Your task to perform on an android device: open app "Truecaller" (install if not already installed), go to login, and select forgot password Image 0: 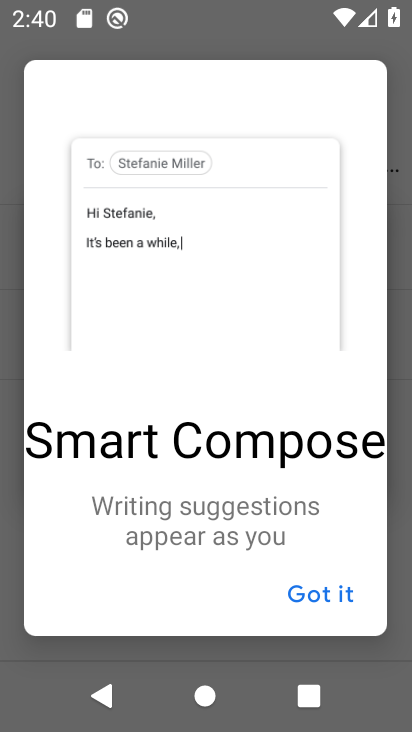
Step 0: press home button
Your task to perform on an android device: open app "Truecaller" (install if not already installed), go to login, and select forgot password Image 1: 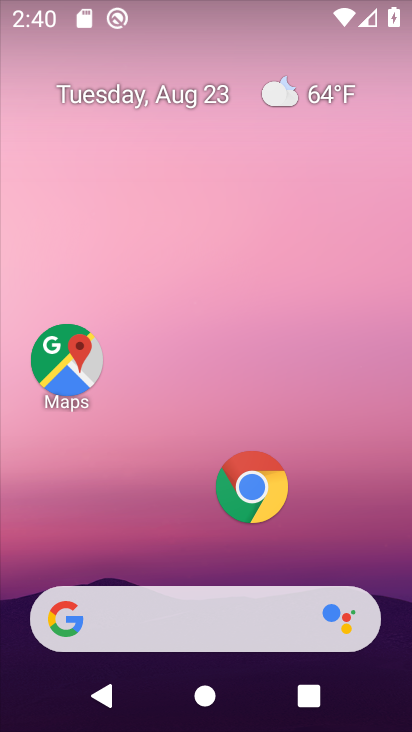
Step 1: drag from (136, 509) to (175, 204)
Your task to perform on an android device: open app "Truecaller" (install if not already installed), go to login, and select forgot password Image 2: 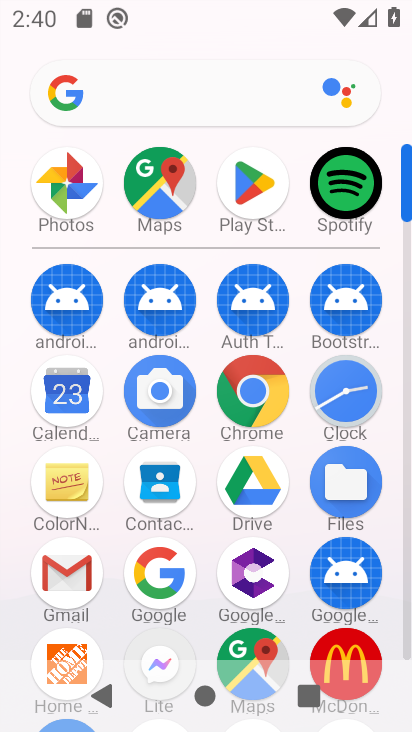
Step 2: click (263, 190)
Your task to perform on an android device: open app "Truecaller" (install if not already installed), go to login, and select forgot password Image 3: 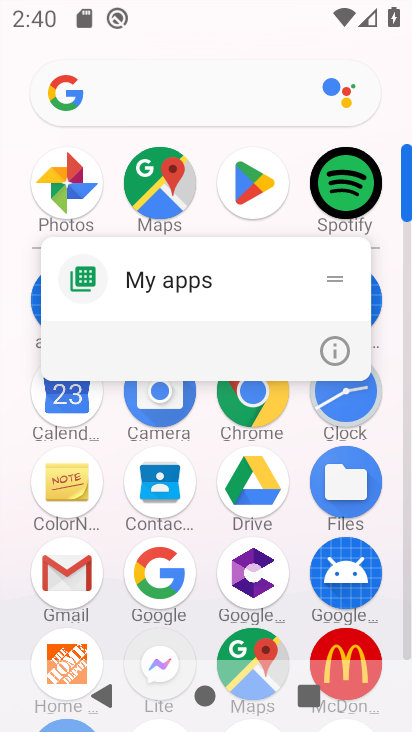
Step 3: click (253, 178)
Your task to perform on an android device: open app "Truecaller" (install if not already installed), go to login, and select forgot password Image 4: 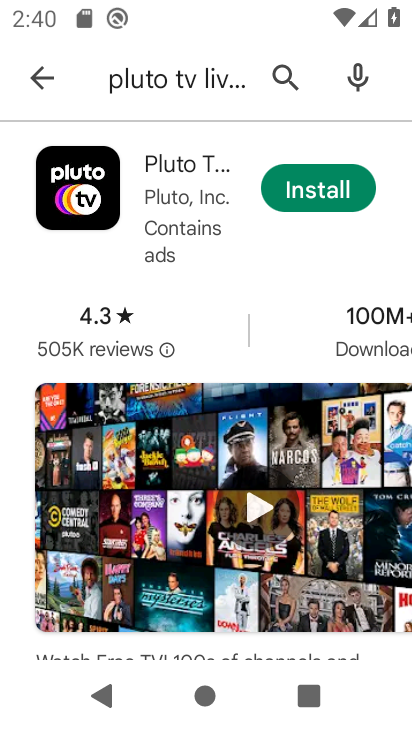
Step 4: click (23, 66)
Your task to perform on an android device: open app "Truecaller" (install if not already installed), go to login, and select forgot password Image 5: 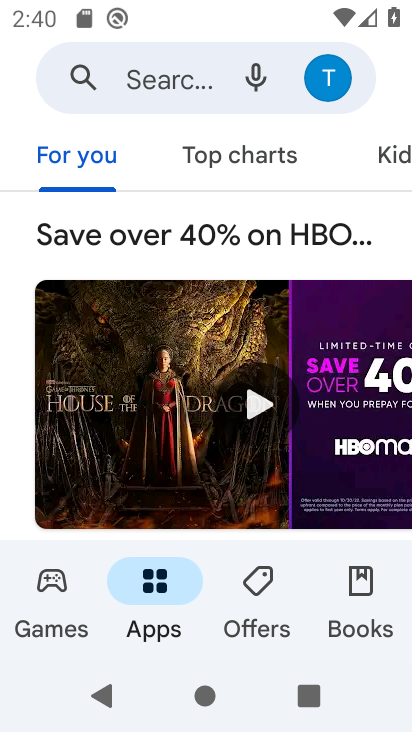
Step 5: click (184, 83)
Your task to perform on an android device: open app "Truecaller" (install if not already installed), go to login, and select forgot password Image 6: 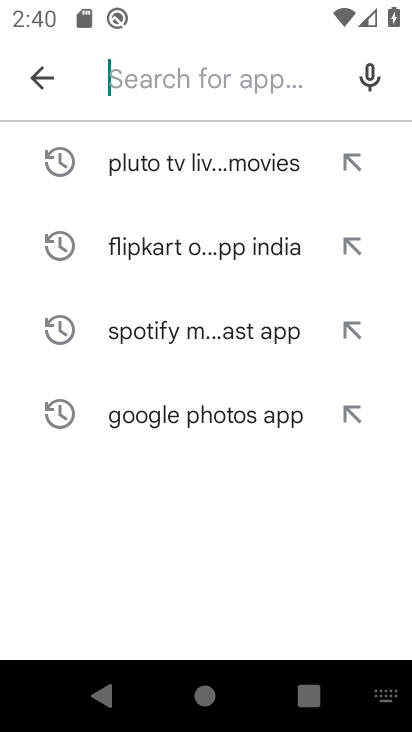
Step 6: type "truecaller "
Your task to perform on an android device: open app "Truecaller" (install if not already installed), go to login, and select forgot password Image 7: 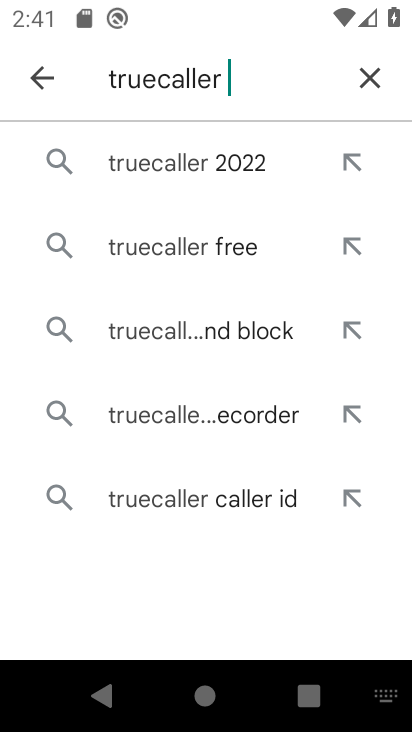
Step 7: click (190, 162)
Your task to perform on an android device: open app "Truecaller" (install if not already installed), go to login, and select forgot password Image 8: 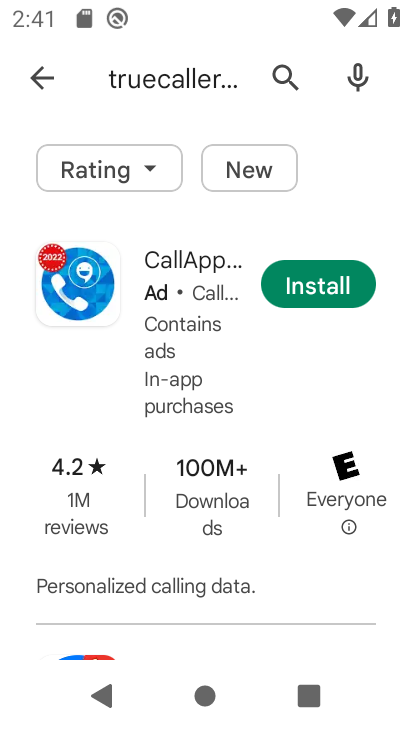
Step 8: click (49, 82)
Your task to perform on an android device: open app "Truecaller" (install if not already installed), go to login, and select forgot password Image 9: 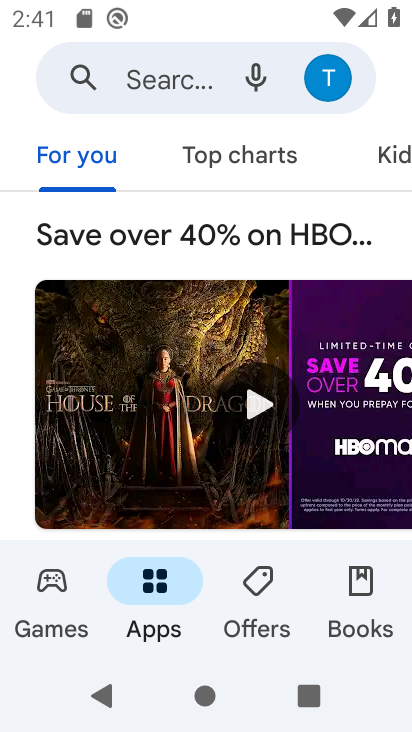
Step 9: click (177, 83)
Your task to perform on an android device: open app "Truecaller" (install if not already installed), go to login, and select forgot password Image 10: 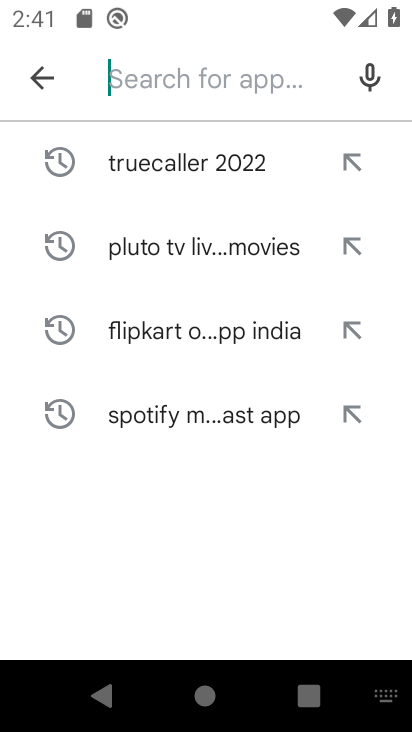
Step 10: click (123, 178)
Your task to perform on an android device: open app "Truecaller" (install if not already installed), go to login, and select forgot password Image 11: 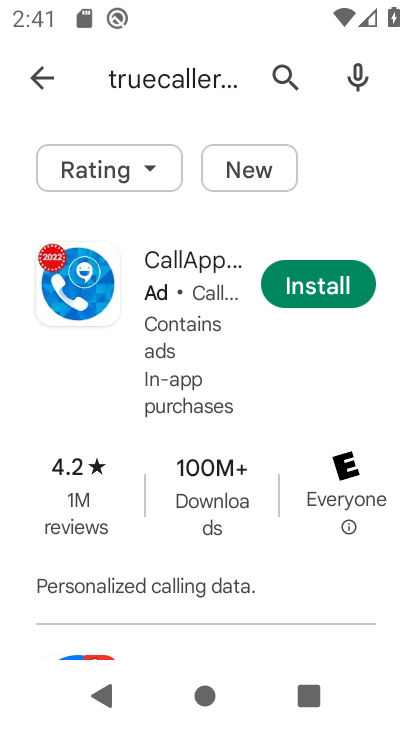
Step 11: drag from (143, 505) to (245, 155)
Your task to perform on an android device: open app "Truecaller" (install if not already installed), go to login, and select forgot password Image 12: 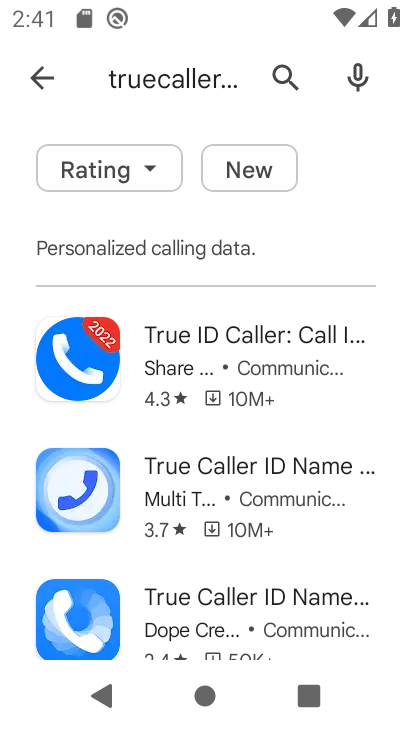
Step 12: click (197, 363)
Your task to perform on an android device: open app "Truecaller" (install if not already installed), go to login, and select forgot password Image 13: 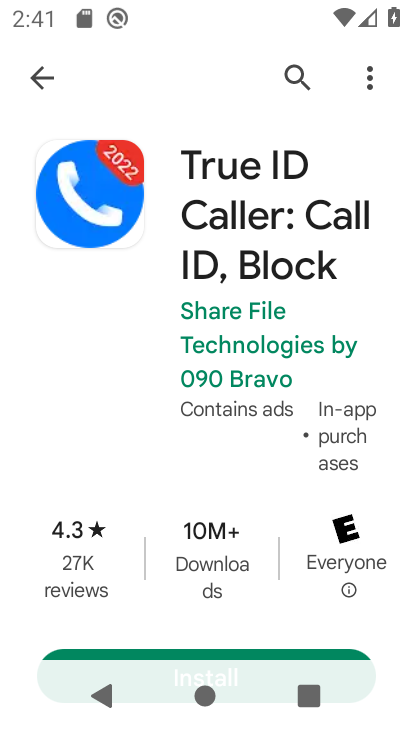
Step 13: drag from (131, 546) to (207, 246)
Your task to perform on an android device: open app "Truecaller" (install if not already installed), go to login, and select forgot password Image 14: 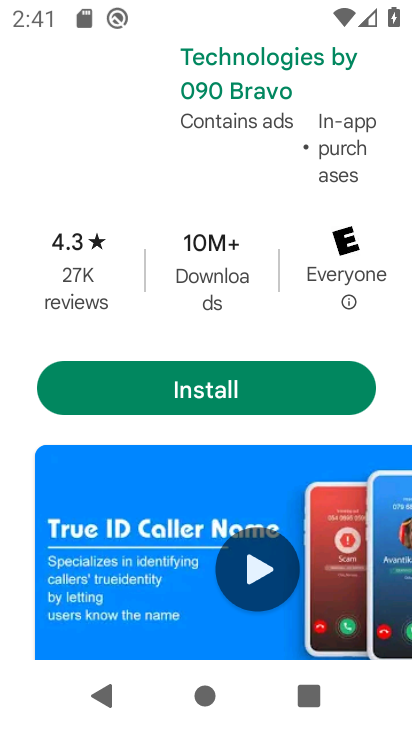
Step 14: click (178, 392)
Your task to perform on an android device: open app "Truecaller" (install if not already installed), go to login, and select forgot password Image 15: 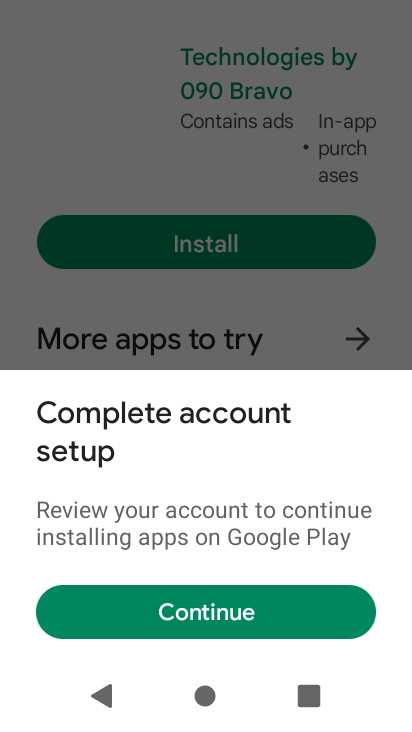
Step 15: task complete